Your task to perform on an android device: Go to internet settings Image 0: 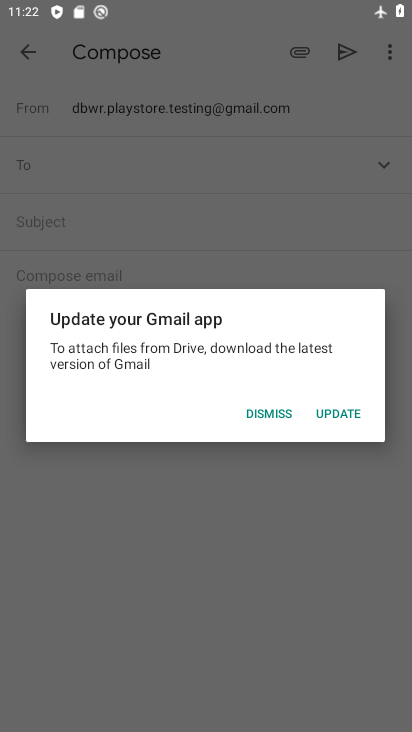
Step 0: drag from (225, 624) to (261, 331)
Your task to perform on an android device: Go to internet settings Image 1: 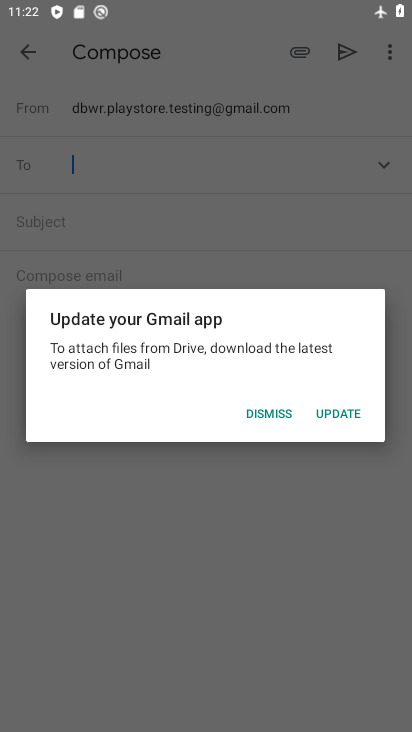
Step 1: press home button
Your task to perform on an android device: Go to internet settings Image 2: 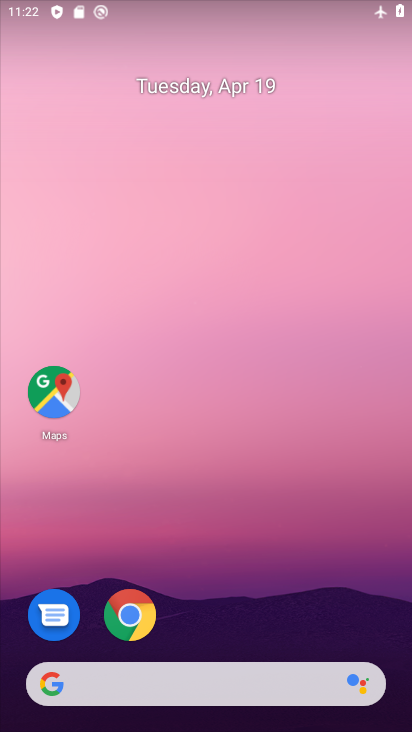
Step 2: drag from (213, 556) to (229, 188)
Your task to perform on an android device: Go to internet settings Image 3: 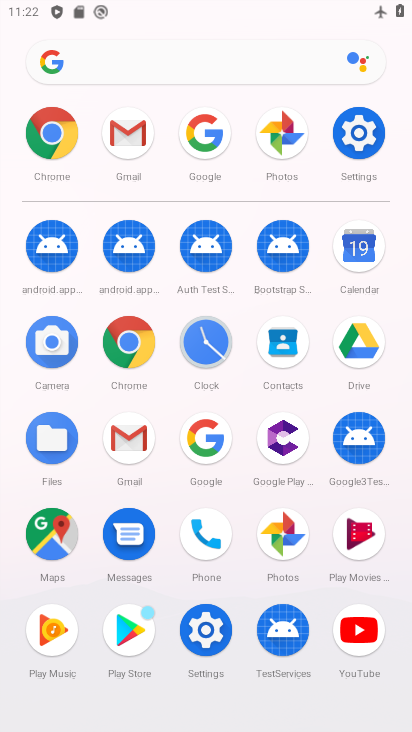
Step 3: click (361, 133)
Your task to perform on an android device: Go to internet settings Image 4: 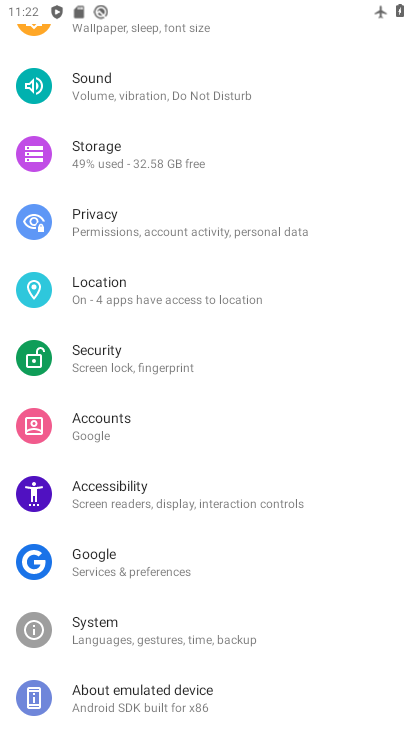
Step 4: drag from (218, 171) to (206, 503)
Your task to perform on an android device: Go to internet settings Image 5: 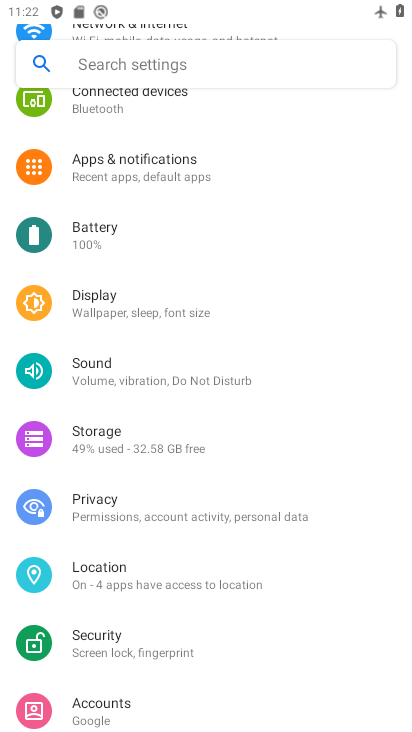
Step 5: drag from (196, 168) to (187, 388)
Your task to perform on an android device: Go to internet settings Image 6: 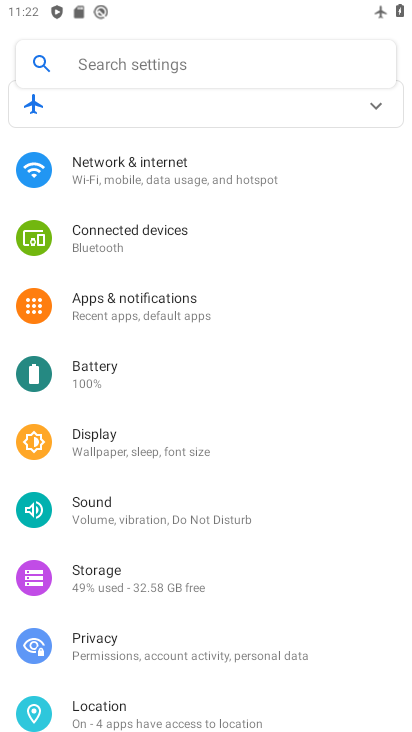
Step 6: click (187, 186)
Your task to perform on an android device: Go to internet settings Image 7: 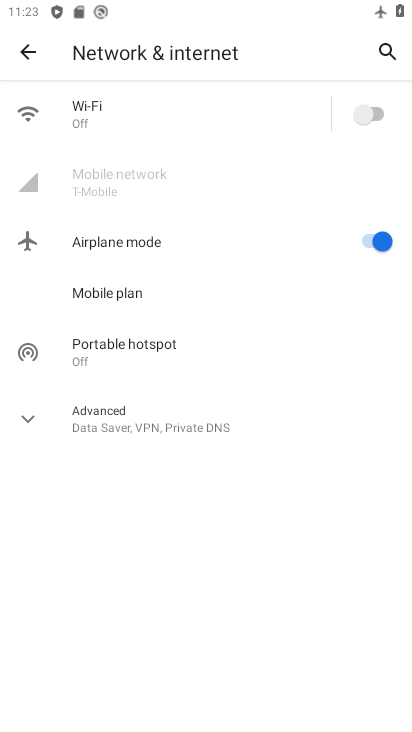
Step 7: task complete